Your task to perform on an android device: change the clock style Image 0: 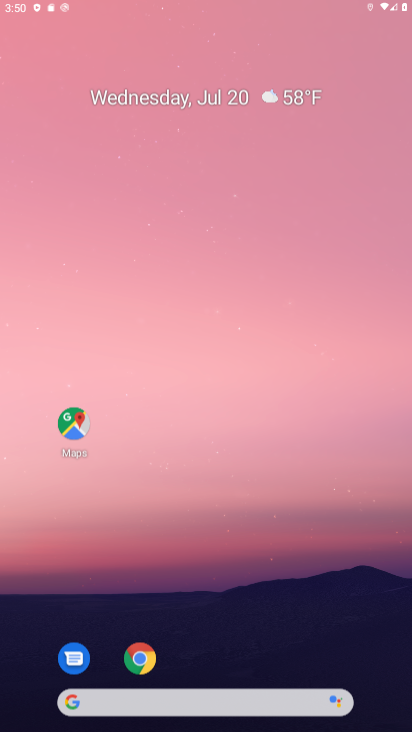
Step 0: click (305, 251)
Your task to perform on an android device: change the clock style Image 1: 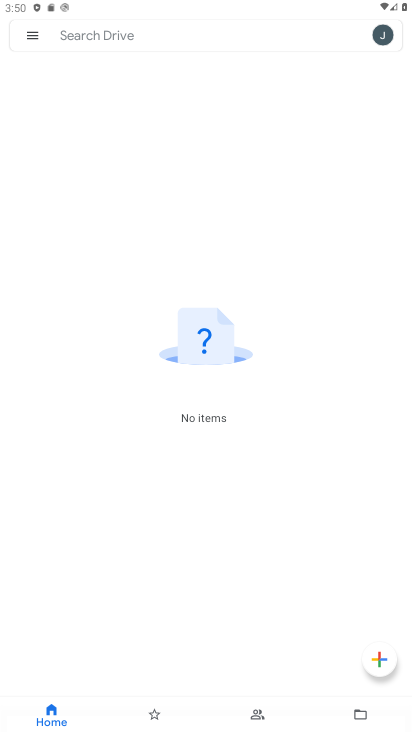
Step 1: press back button
Your task to perform on an android device: change the clock style Image 2: 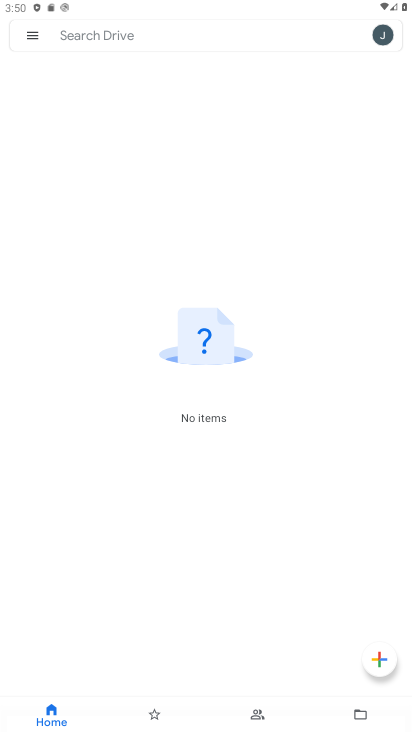
Step 2: press back button
Your task to perform on an android device: change the clock style Image 3: 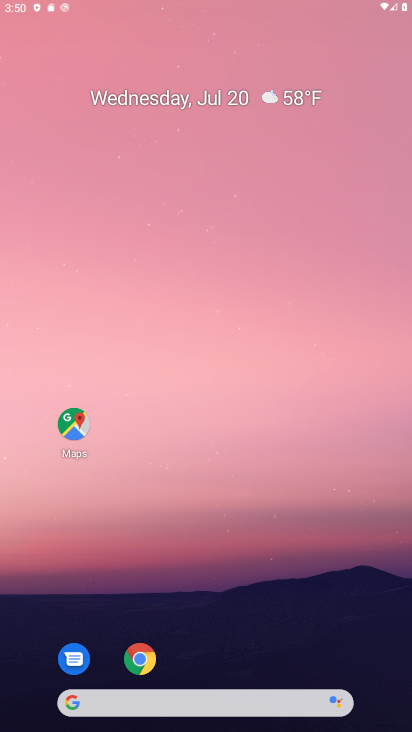
Step 3: press back button
Your task to perform on an android device: change the clock style Image 4: 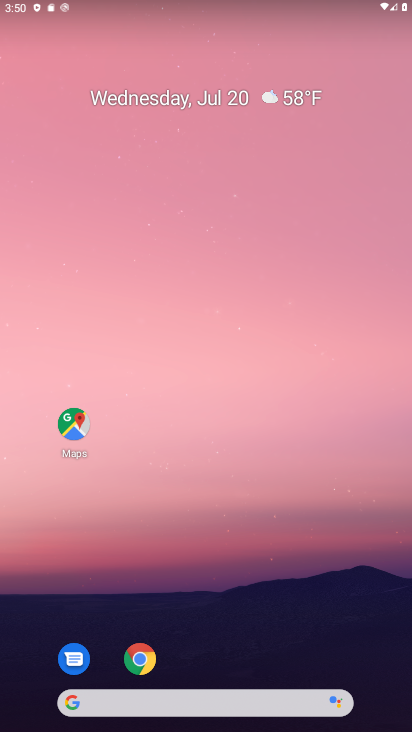
Step 4: drag from (224, 146) to (220, 95)
Your task to perform on an android device: change the clock style Image 5: 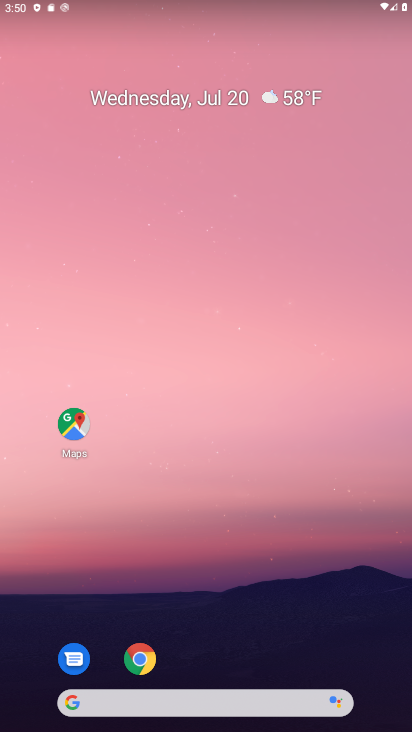
Step 5: drag from (251, 645) to (223, 125)
Your task to perform on an android device: change the clock style Image 6: 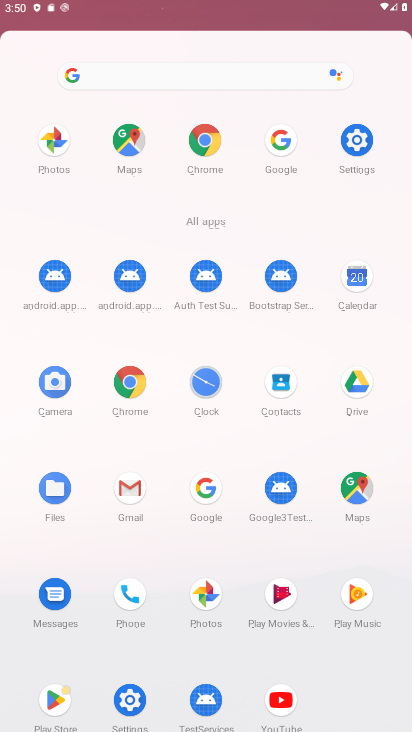
Step 6: drag from (243, 502) to (223, 89)
Your task to perform on an android device: change the clock style Image 7: 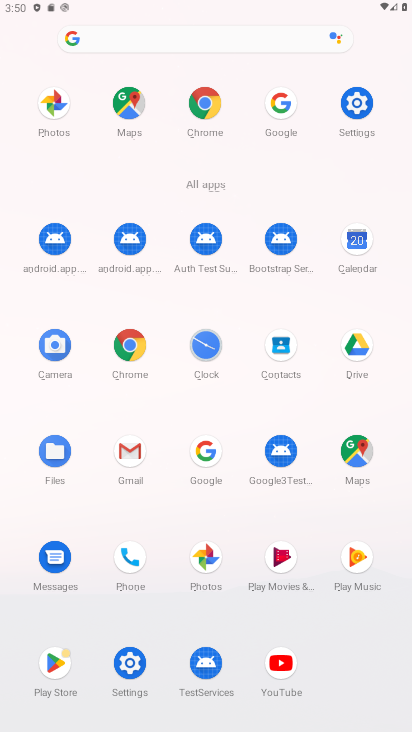
Step 7: click (194, 332)
Your task to perform on an android device: change the clock style Image 8: 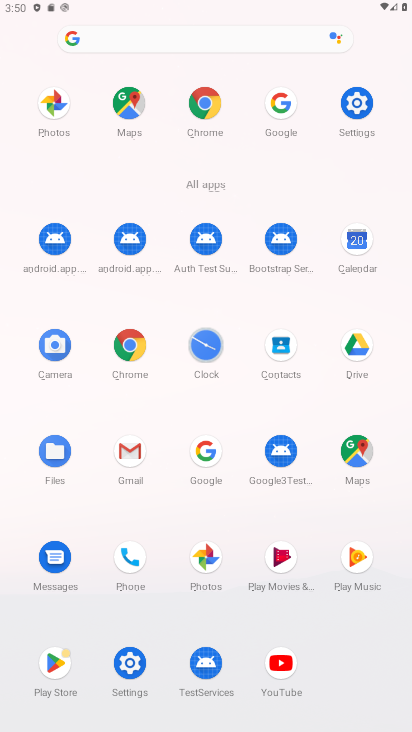
Step 8: click (209, 331)
Your task to perform on an android device: change the clock style Image 9: 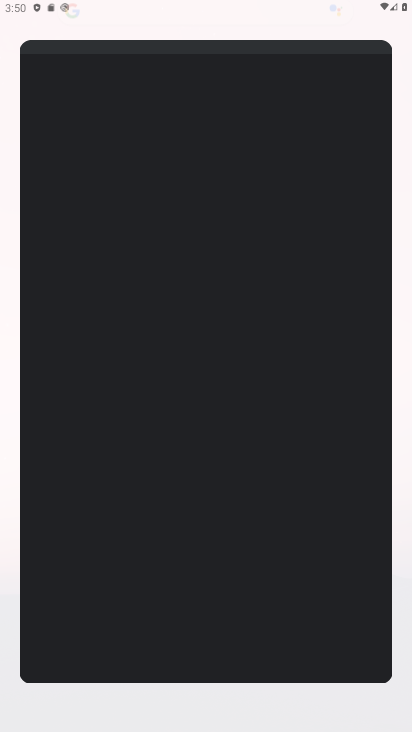
Step 9: click (222, 330)
Your task to perform on an android device: change the clock style Image 10: 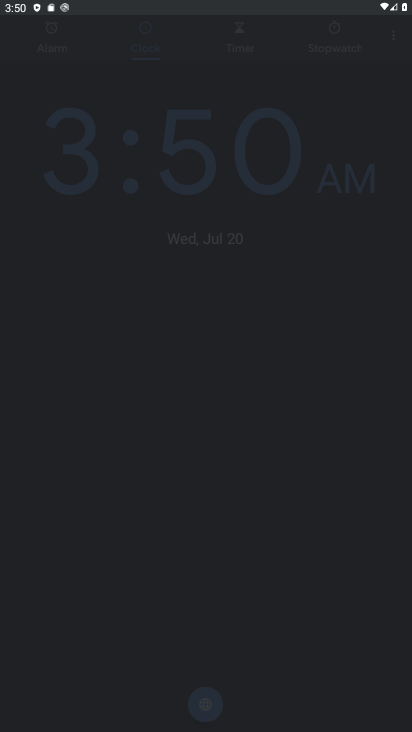
Step 10: click (218, 327)
Your task to perform on an android device: change the clock style Image 11: 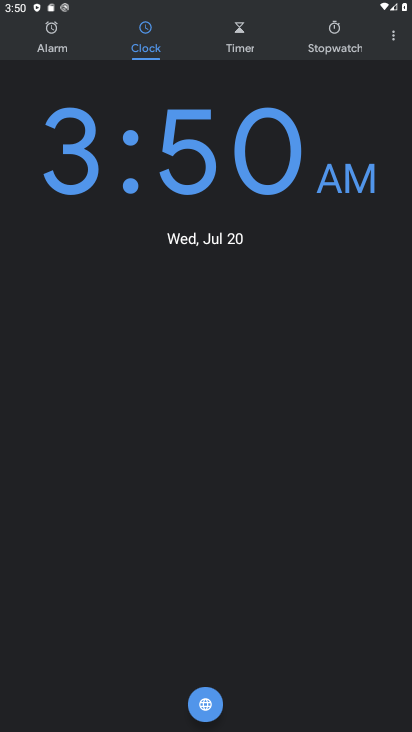
Step 11: drag from (399, 31) to (181, 264)
Your task to perform on an android device: change the clock style Image 12: 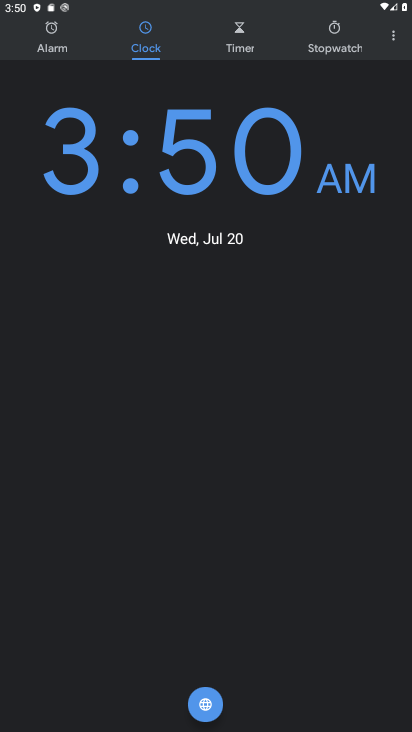
Step 12: drag from (382, 47) to (327, 172)
Your task to perform on an android device: change the clock style Image 13: 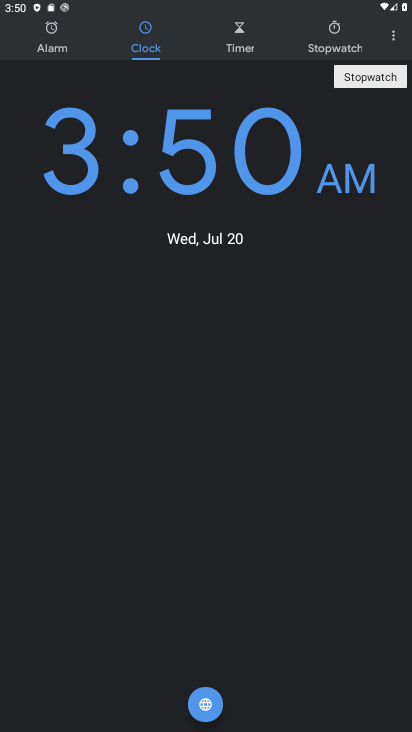
Step 13: click (374, 100)
Your task to perform on an android device: change the clock style Image 14: 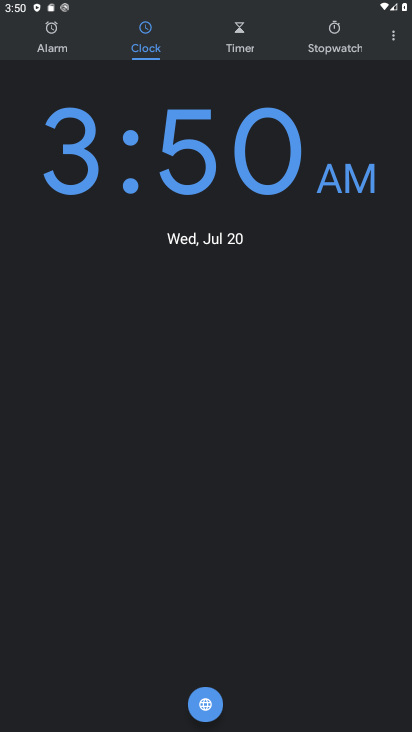
Step 14: click (395, 33)
Your task to perform on an android device: change the clock style Image 15: 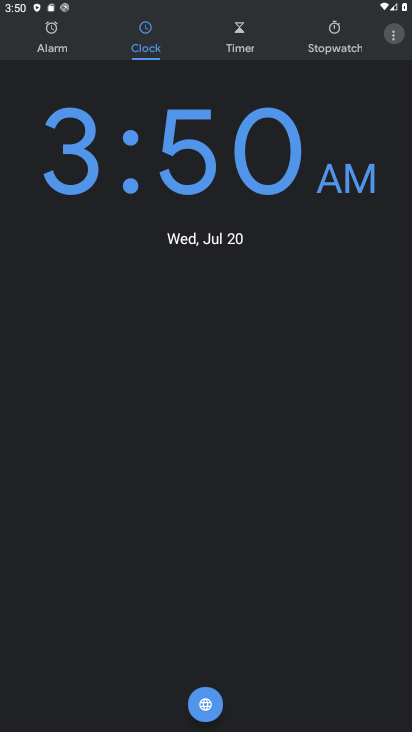
Step 15: drag from (396, 37) to (316, 58)
Your task to perform on an android device: change the clock style Image 16: 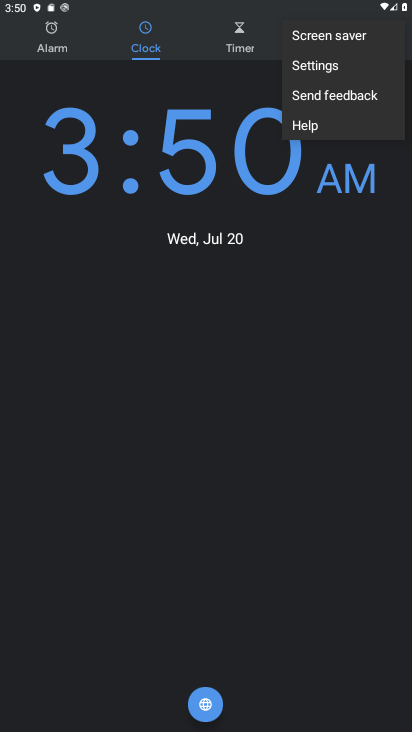
Step 16: click (311, 68)
Your task to perform on an android device: change the clock style Image 17: 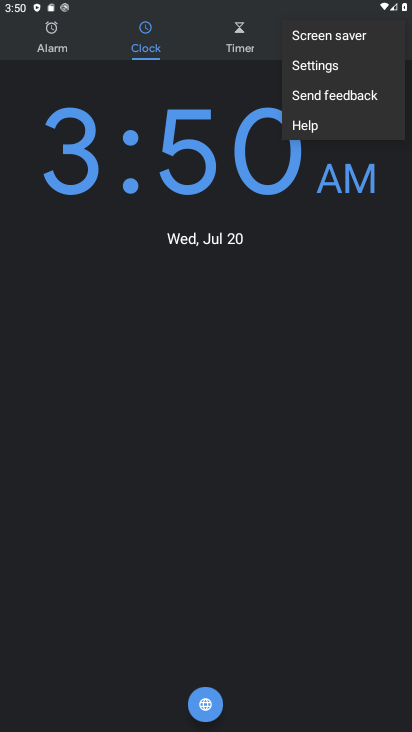
Step 17: click (311, 68)
Your task to perform on an android device: change the clock style Image 18: 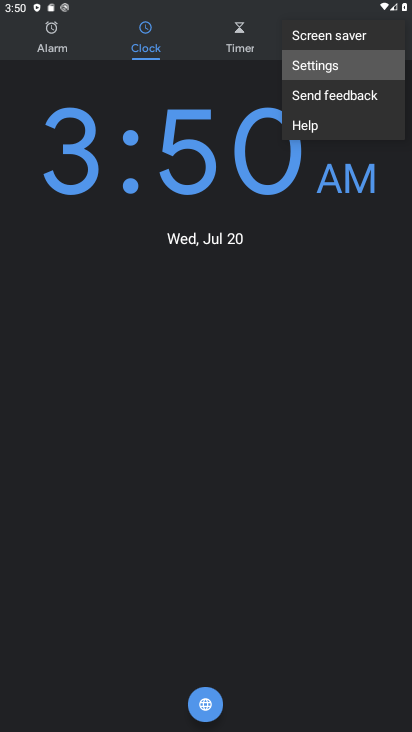
Step 18: click (312, 70)
Your task to perform on an android device: change the clock style Image 19: 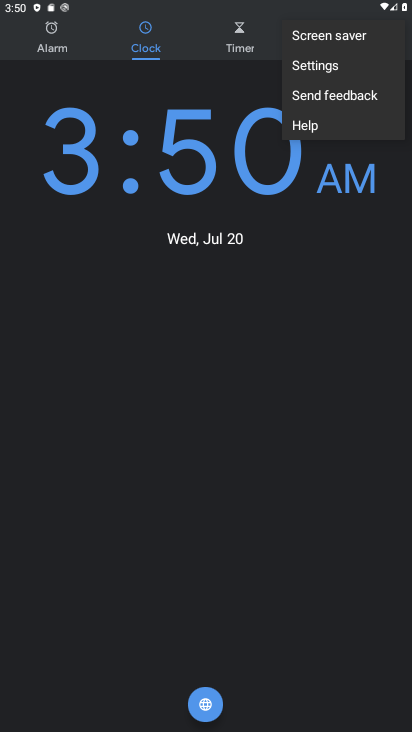
Step 19: click (311, 77)
Your task to perform on an android device: change the clock style Image 20: 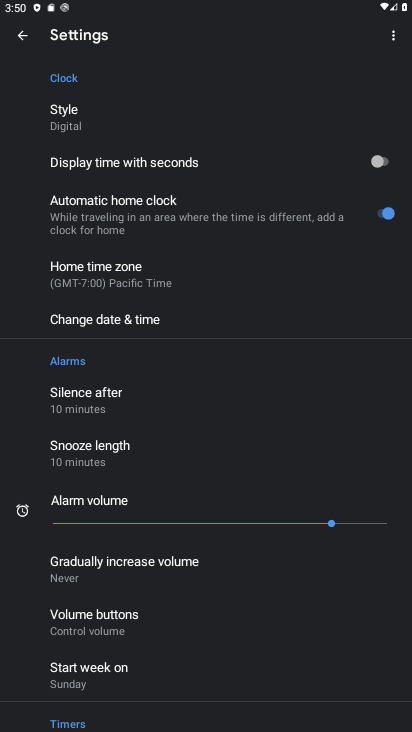
Step 20: click (69, 115)
Your task to perform on an android device: change the clock style Image 21: 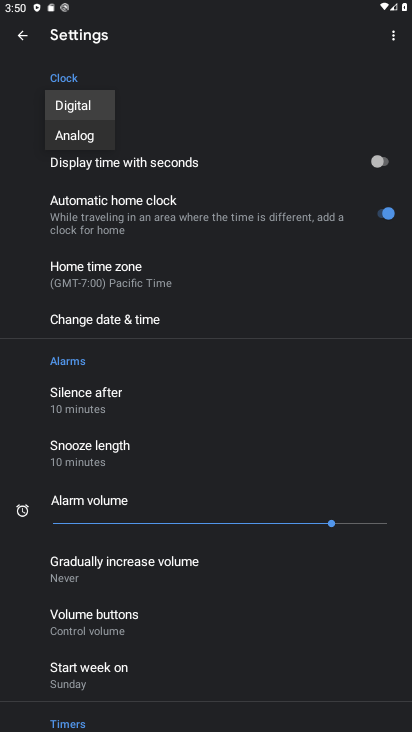
Step 21: click (69, 143)
Your task to perform on an android device: change the clock style Image 22: 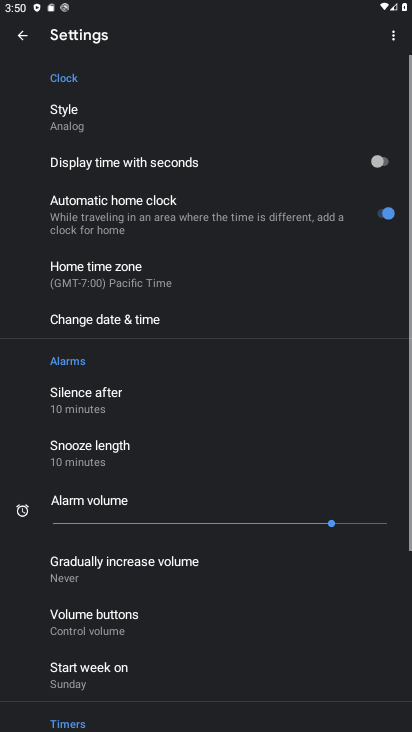
Step 22: task complete